Your task to perform on an android device: See recent photos Image 0: 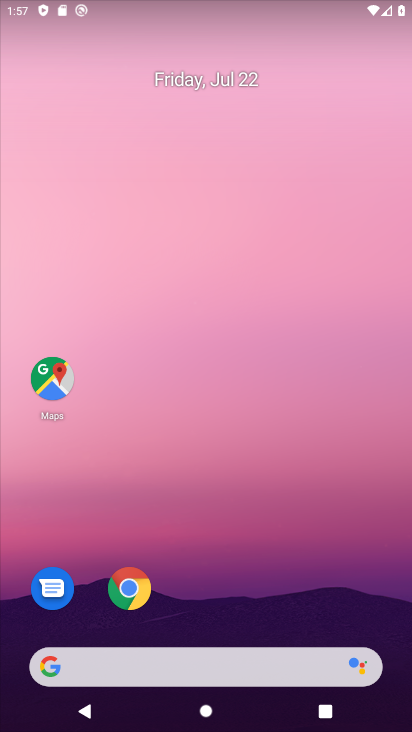
Step 0: drag from (248, 630) to (202, 101)
Your task to perform on an android device: See recent photos Image 1: 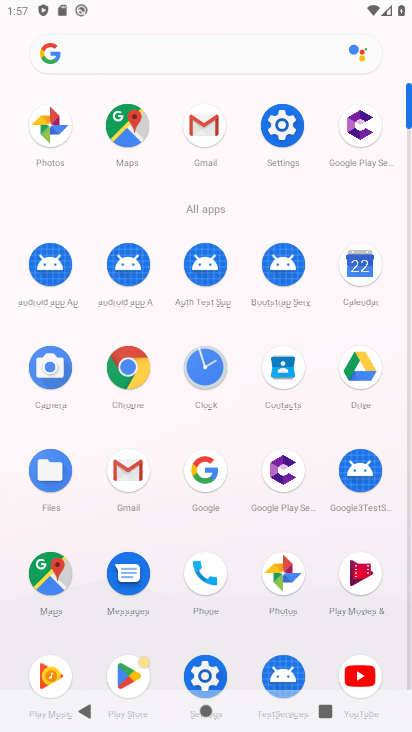
Step 1: click (46, 127)
Your task to perform on an android device: See recent photos Image 2: 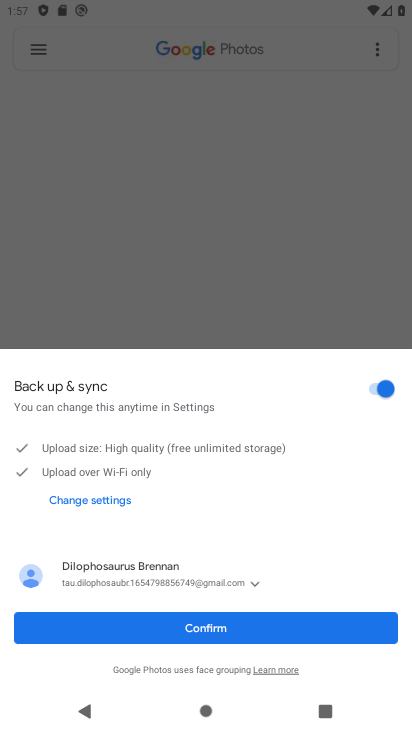
Step 2: click (208, 624)
Your task to perform on an android device: See recent photos Image 3: 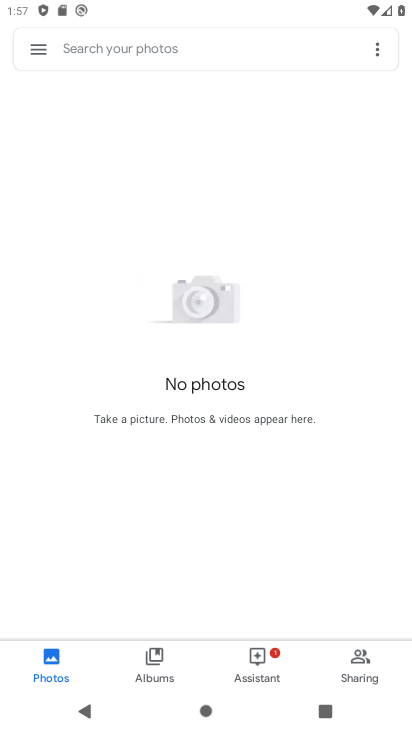
Step 3: task complete